Your task to perform on an android device: Search for sushi restaurants on Maps Image 0: 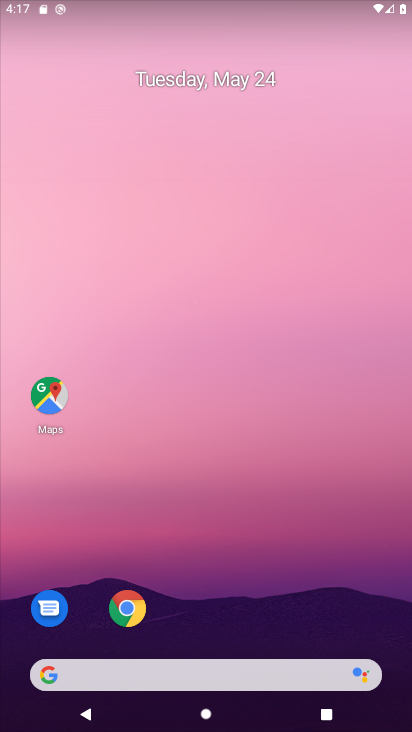
Step 0: drag from (172, 645) to (222, 238)
Your task to perform on an android device: Search for sushi restaurants on Maps Image 1: 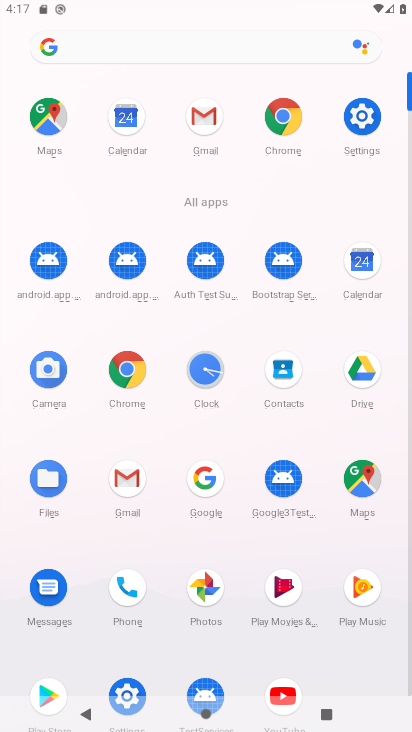
Step 1: click (54, 124)
Your task to perform on an android device: Search for sushi restaurants on Maps Image 2: 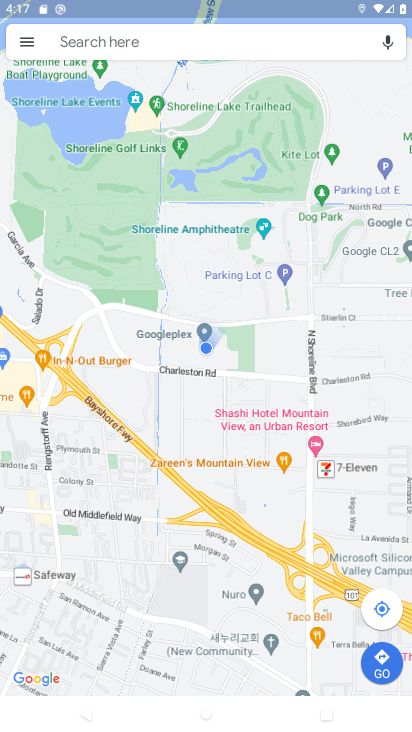
Step 2: click (133, 43)
Your task to perform on an android device: Search for sushi restaurants on Maps Image 3: 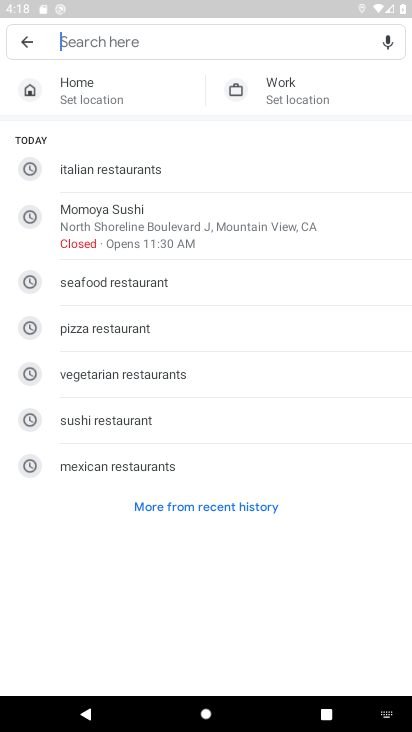
Step 3: type "sushi restaurants"
Your task to perform on an android device: Search for sushi restaurants on Maps Image 4: 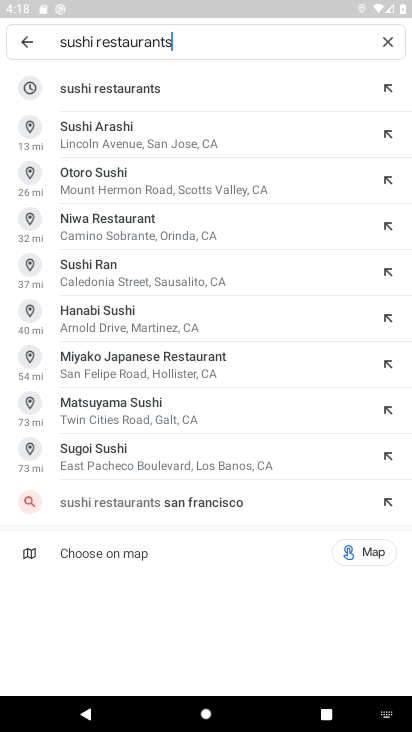
Step 4: click (72, 99)
Your task to perform on an android device: Search for sushi restaurants on Maps Image 5: 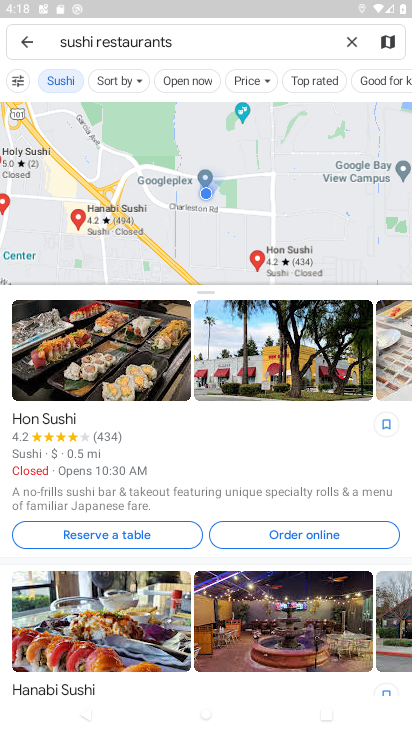
Step 5: task complete